Your task to perform on an android device: Search for sushi restaurants on Maps Image 0: 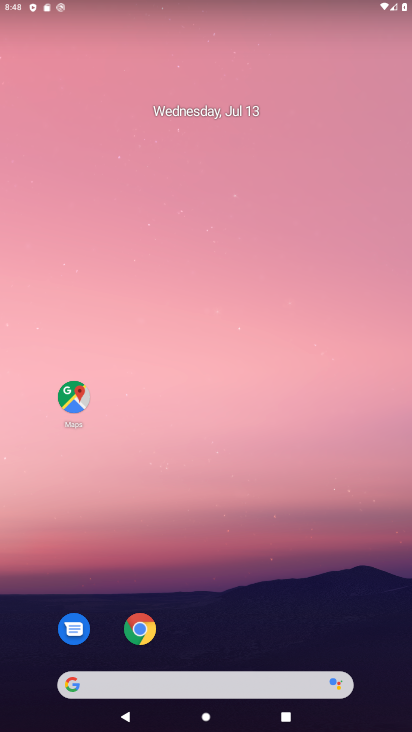
Step 0: drag from (283, 620) to (309, 0)
Your task to perform on an android device: Search for sushi restaurants on Maps Image 1: 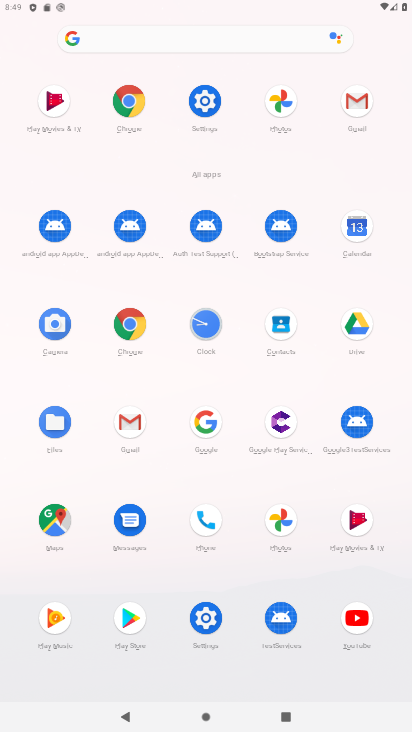
Step 1: click (67, 516)
Your task to perform on an android device: Search for sushi restaurants on Maps Image 2: 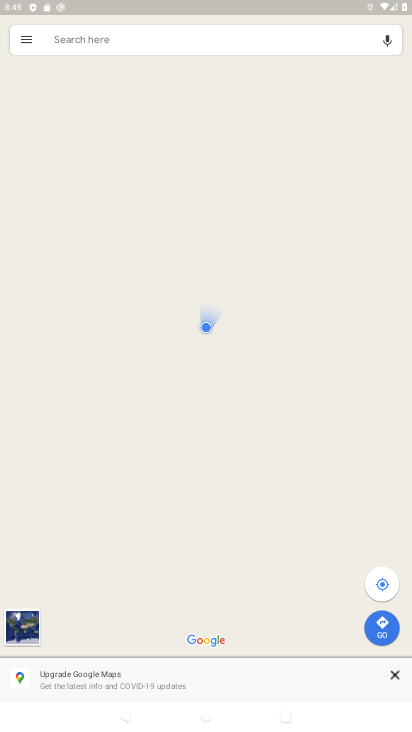
Step 2: click (289, 47)
Your task to perform on an android device: Search for sushi restaurants on Maps Image 3: 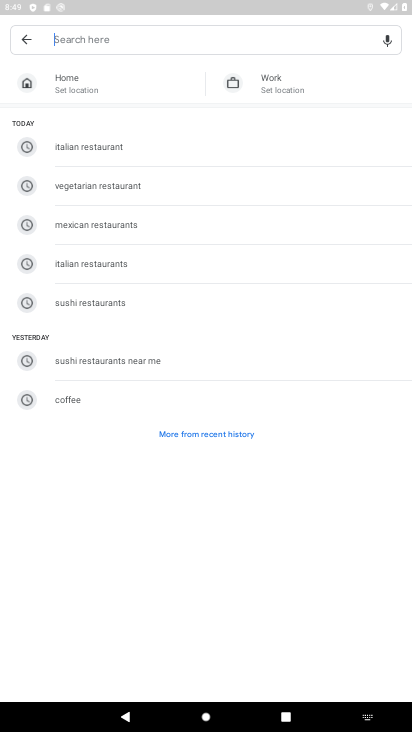
Step 3: type "sushi restaurants"
Your task to perform on an android device: Search for sushi restaurants on Maps Image 4: 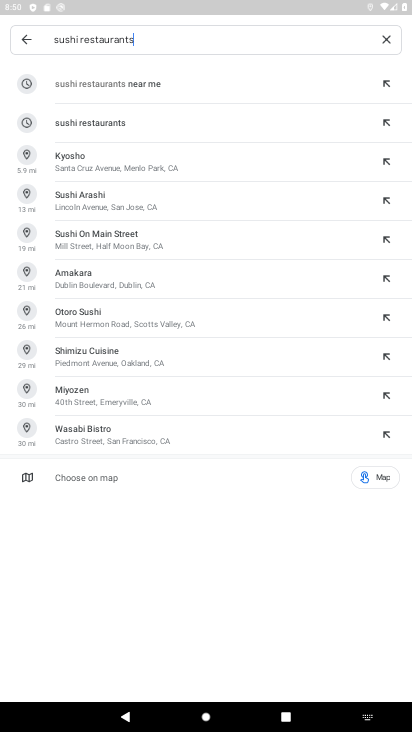
Step 4: click (89, 125)
Your task to perform on an android device: Search for sushi restaurants on Maps Image 5: 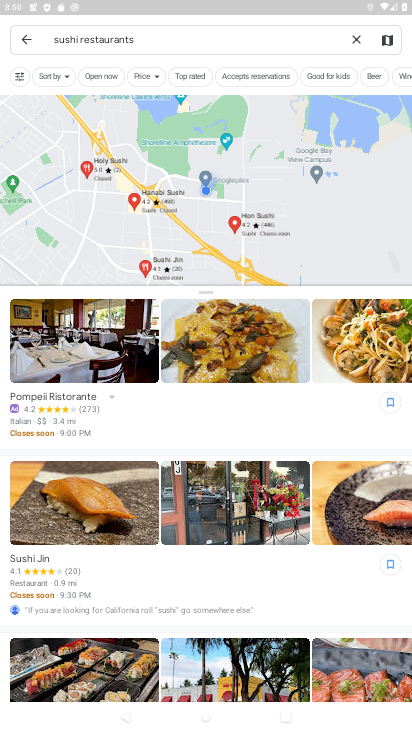
Step 5: task complete